Your task to perform on an android device: empty trash in google photos Image 0: 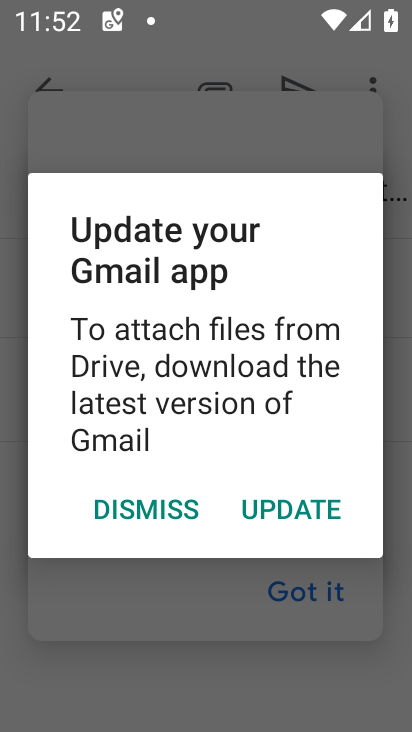
Step 0: press home button
Your task to perform on an android device: empty trash in google photos Image 1: 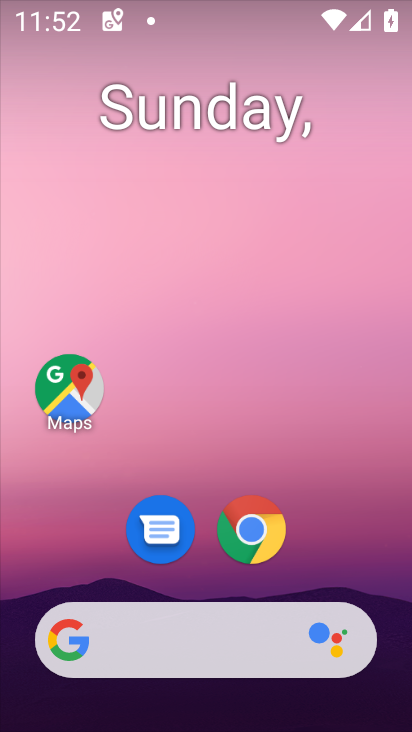
Step 1: drag from (382, 556) to (408, 76)
Your task to perform on an android device: empty trash in google photos Image 2: 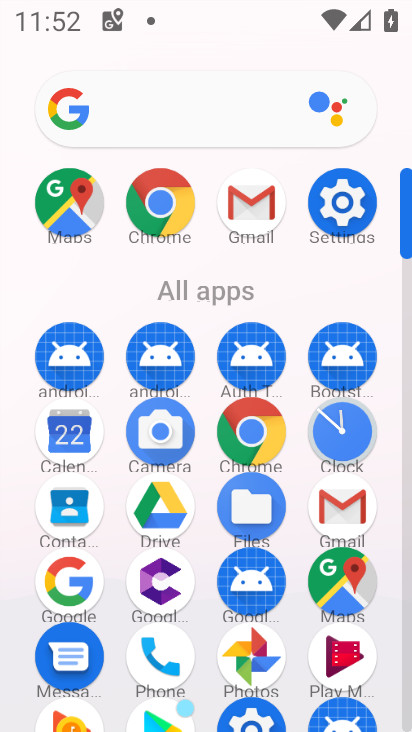
Step 2: drag from (385, 627) to (385, 358)
Your task to perform on an android device: empty trash in google photos Image 3: 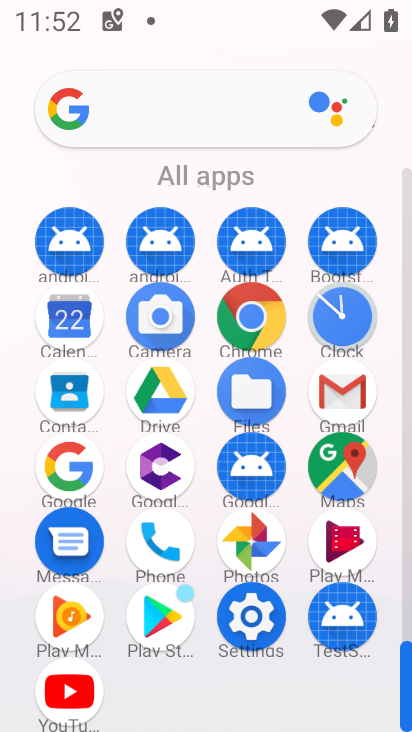
Step 3: click (243, 539)
Your task to perform on an android device: empty trash in google photos Image 4: 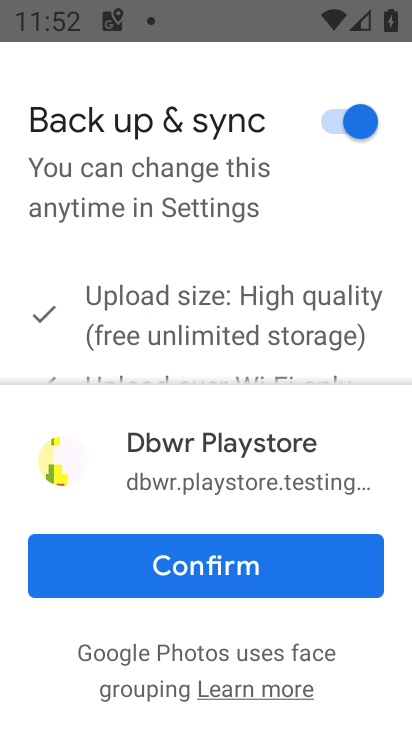
Step 4: click (331, 588)
Your task to perform on an android device: empty trash in google photos Image 5: 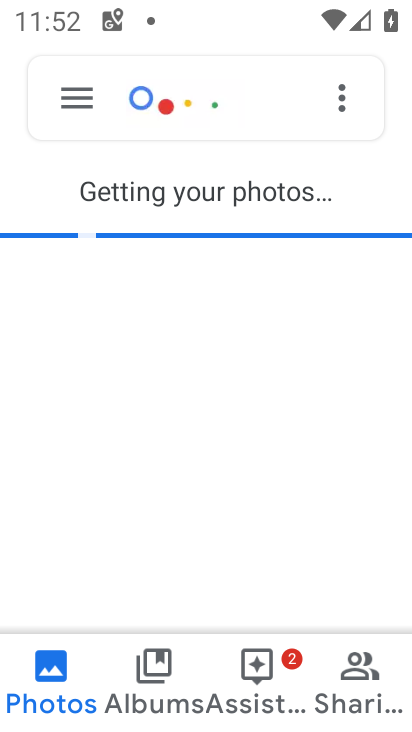
Step 5: click (74, 96)
Your task to perform on an android device: empty trash in google photos Image 6: 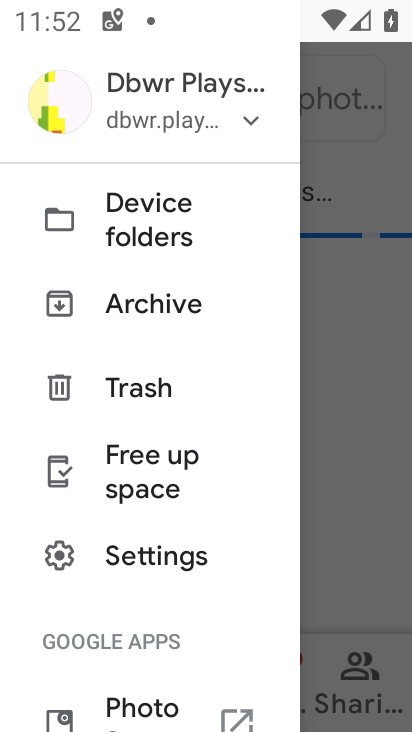
Step 6: drag from (237, 537) to (250, 383)
Your task to perform on an android device: empty trash in google photos Image 7: 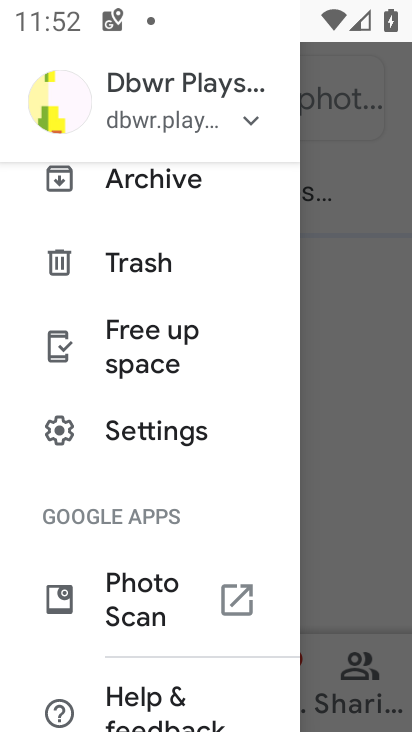
Step 7: drag from (237, 547) to (251, 348)
Your task to perform on an android device: empty trash in google photos Image 8: 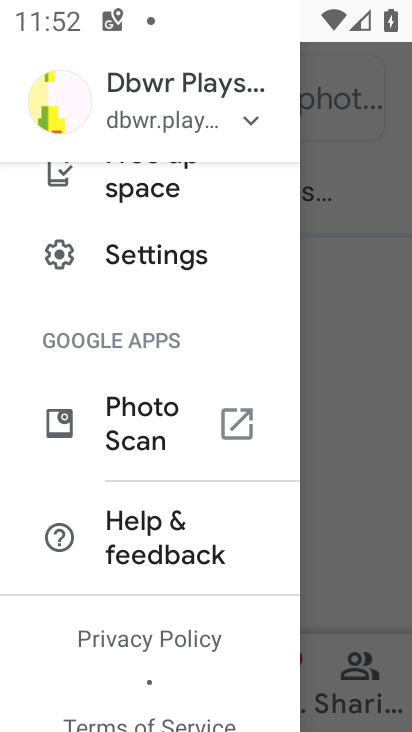
Step 8: drag from (255, 310) to (247, 495)
Your task to perform on an android device: empty trash in google photos Image 9: 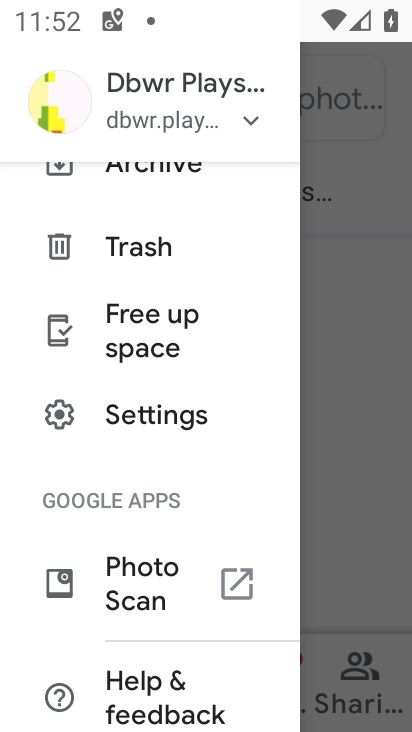
Step 9: click (160, 253)
Your task to perform on an android device: empty trash in google photos Image 10: 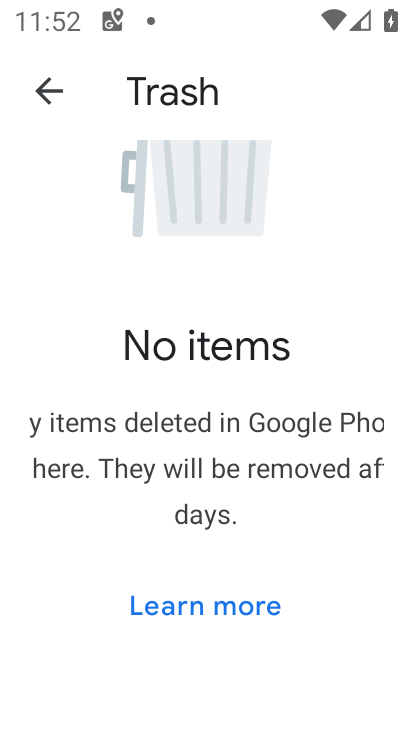
Step 10: task complete